Your task to perform on an android device: clear all cookies in the chrome app Image 0: 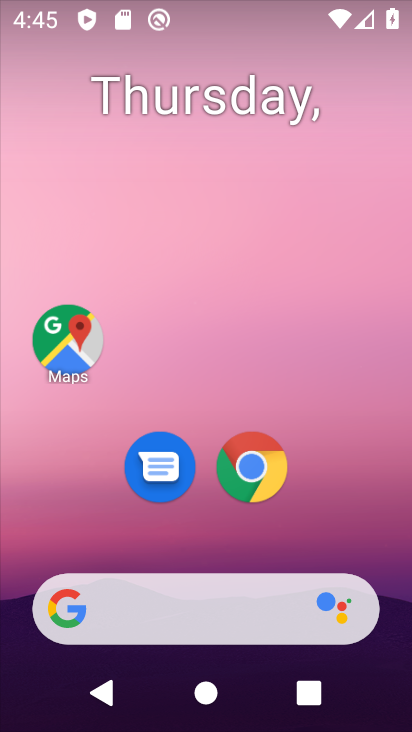
Step 0: click (265, 470)
Your task to perform on an android device: clear all cookies in the chrome app Image 1: 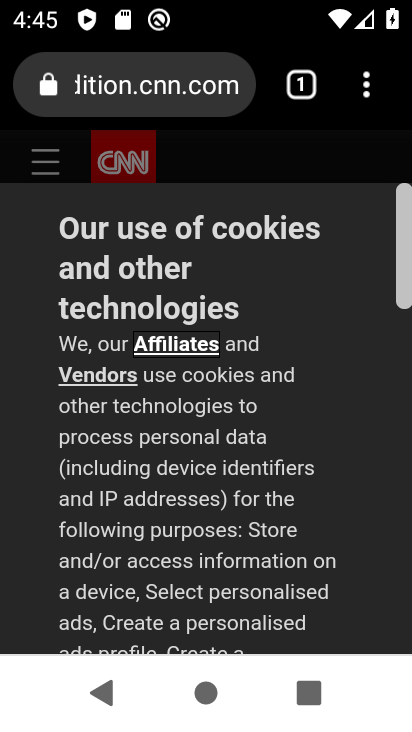
Step 1: click (388, 86)
Your task to perform on an android device: clear all cookies in the chrome app Image 2: 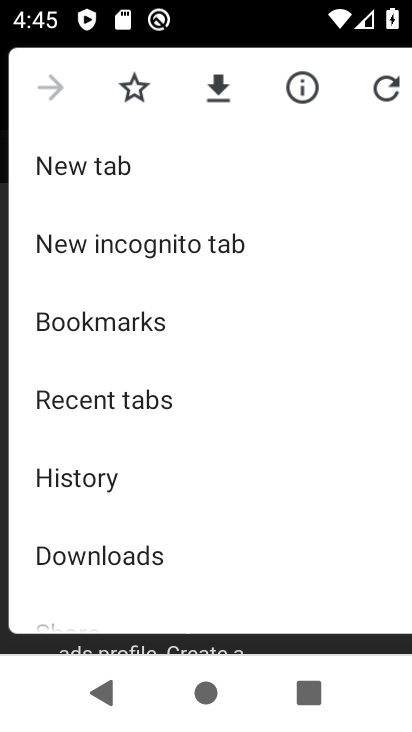
Step 2: click (192, 489)
Your task to perform on an android device: clear all cookies in the chrome app Image 3: 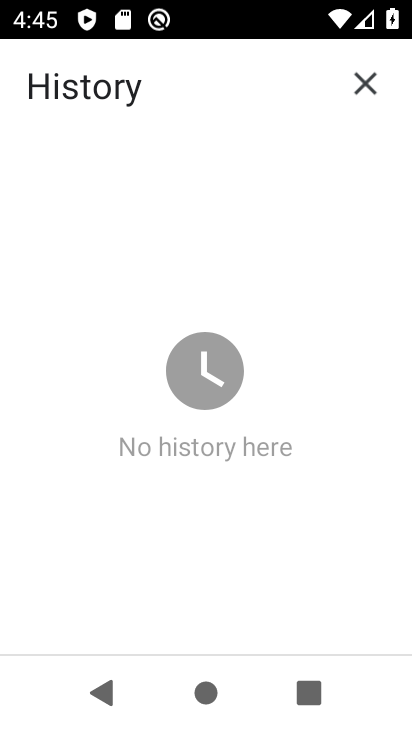
Step 3: task complete